Your task to perform on an android device: toggle show notifications on the lock screen Image 0: 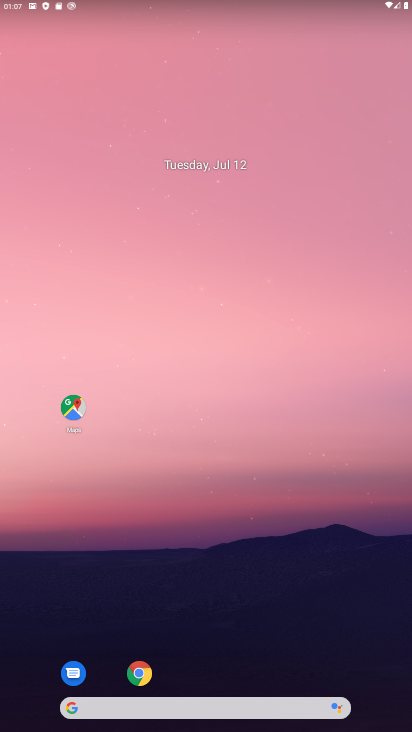
Step 0: press home button
Your task to perform on an android device: toggle show notifications on the lock screen Image 1: 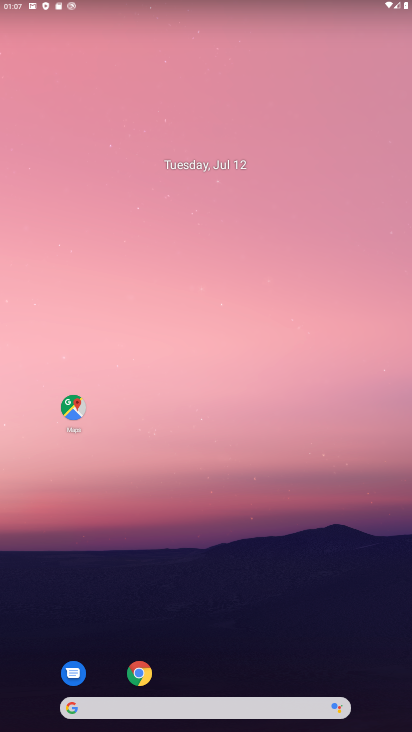
Step 1: drag from (276, 605) to (306, 69)
Your task to perform on an android device: toggle show notifications on the lock screen Image 2: 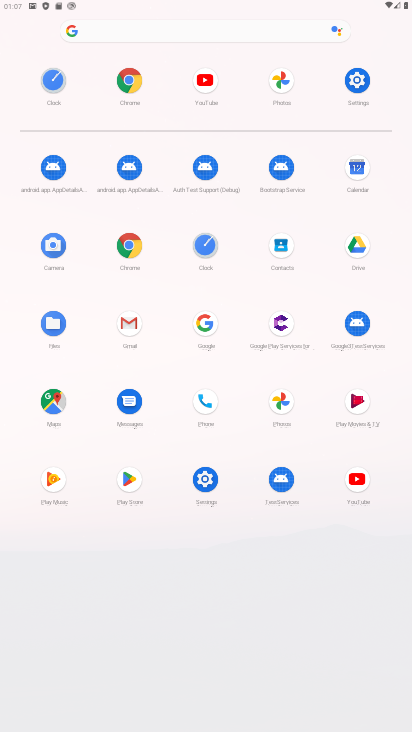
Step 2: click (356, 79)
Your task to perform on an android device: toggle show notifications on the lock screen Image 3: 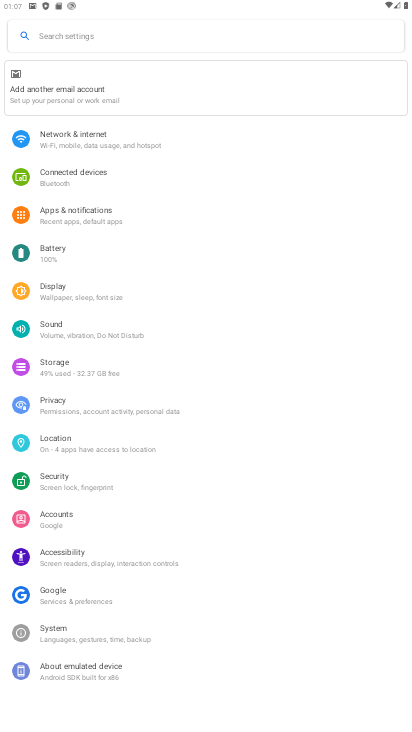
Step 3: click (66, 211)
Your task to perform on an android device: toggle show notifications on the lock screen Image 4: 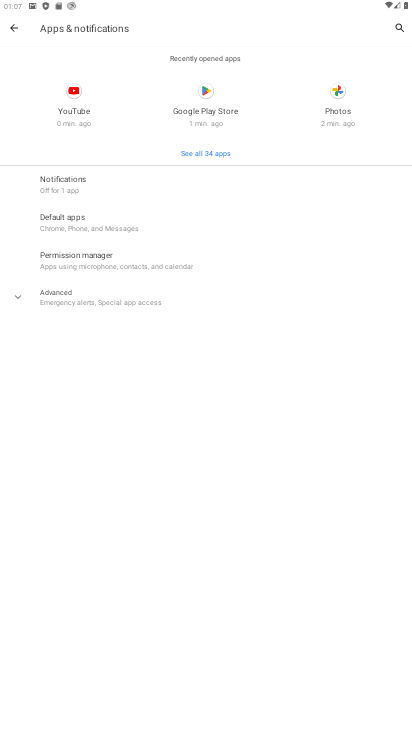
Step 4: click (73, 185)
Your task to perform on an android device: toggle show notifications on the lock screen Image 5: 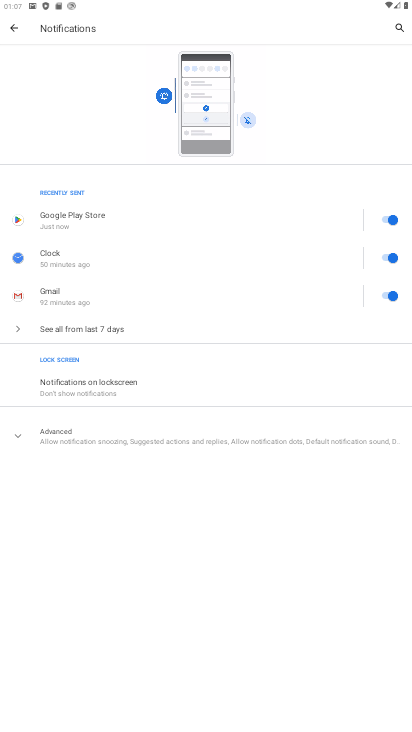
Step 5: click (99, 394)
Your task to perform on an android device: toggle show notifications on the lock screen Image 6: 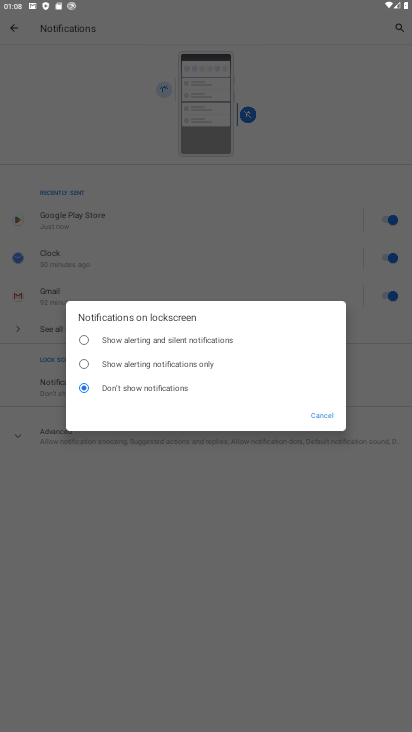
Step 6: click (82, 341)
Your task to perform on an android device: toggle show notifications on the lock screen Image 7: 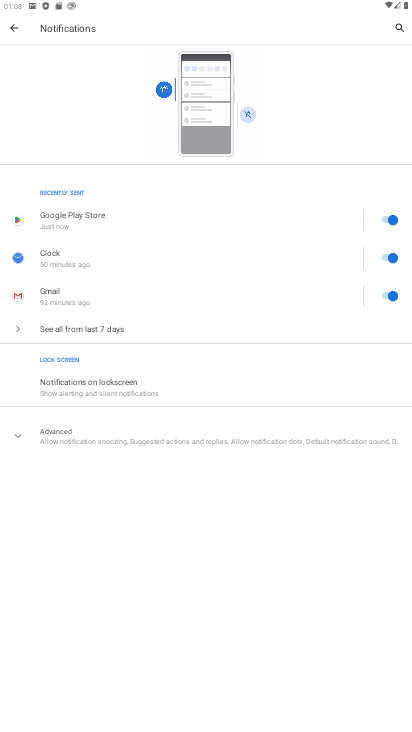
Step 7: task complete